Your task to perform on an android device: turn smart compose on in the gmail app Image 0: 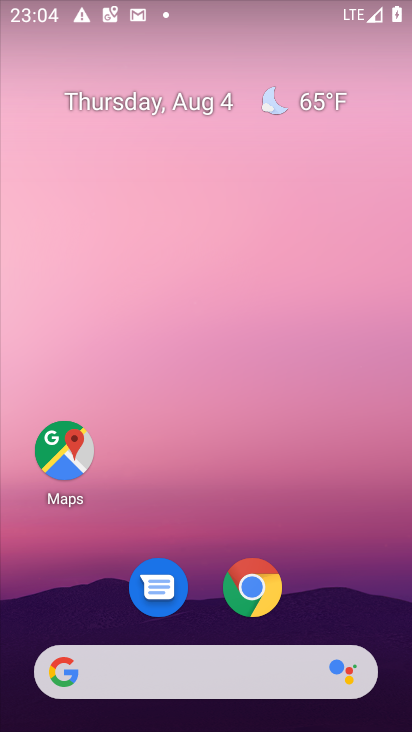
Step 0: drag from (270, 666) to (275, 161)
Your task to perform on an android device: turn smart compose on in the gmail app Image 1: 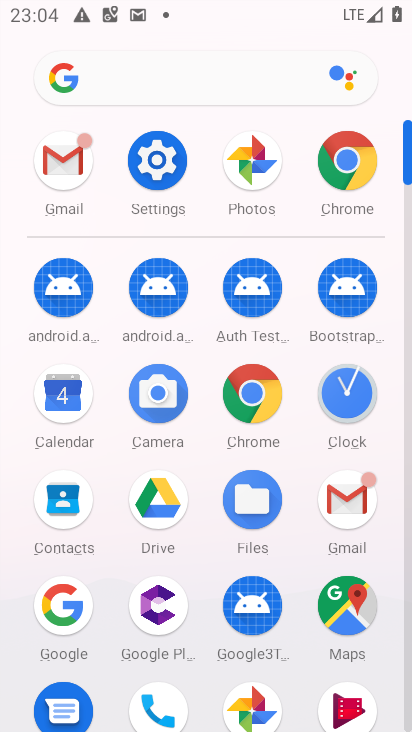
Step 1: click (351, 499)
Your task to perform on an android device: turn smart compose on in the gmail app Image 2: 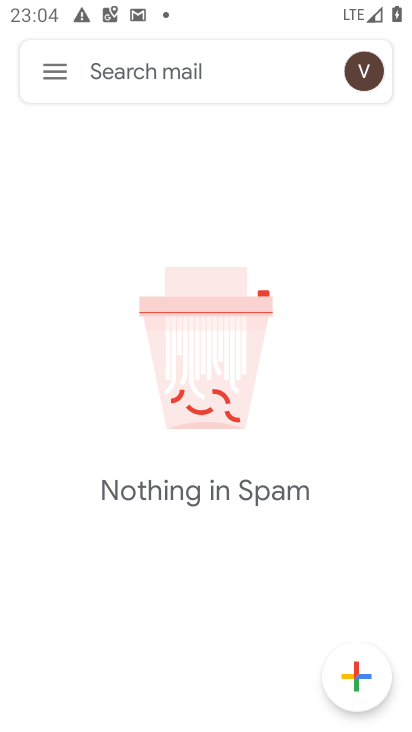
Step 2: click (55, 74)
Your task to perform on an android device: turn smart compose on in the gmail app Image 3: 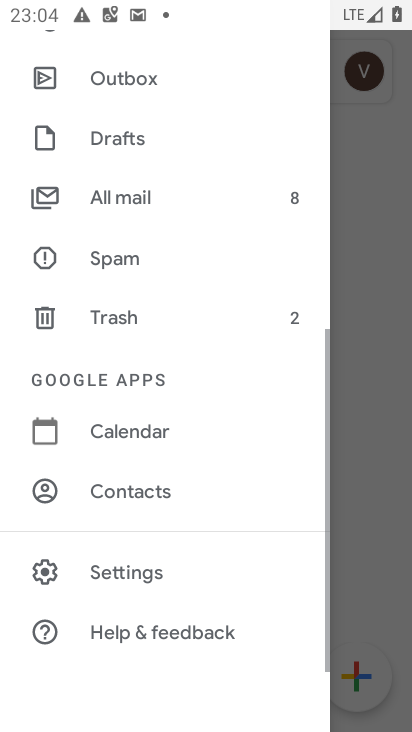
Step 3: click (137, 568)
Your task to perform on an android device: turn smart compose on in the gmail app Image 4: 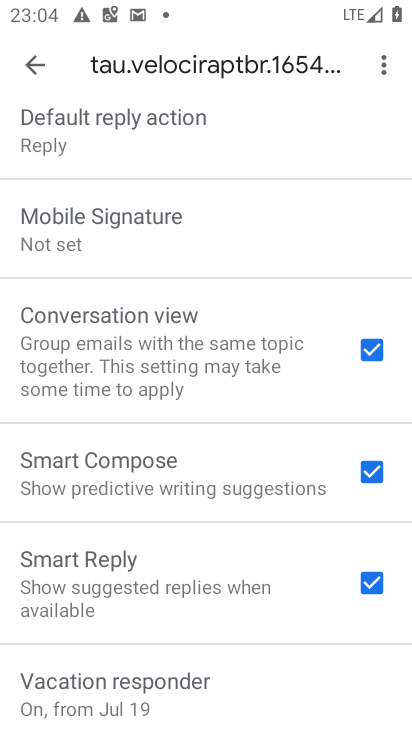
Step 4: task complete